Your task to perform on an android device: Show me popular videos on Youtube Image 0: 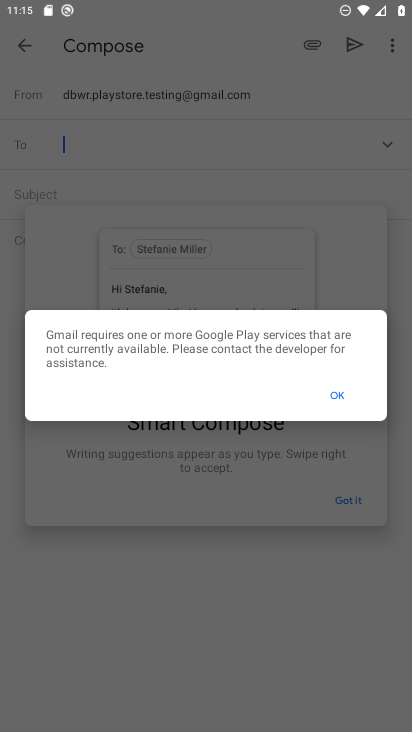
Step 0: click (334, 397)
Your task to perform on an android device: Show me popular videos on Youtube Image 1: 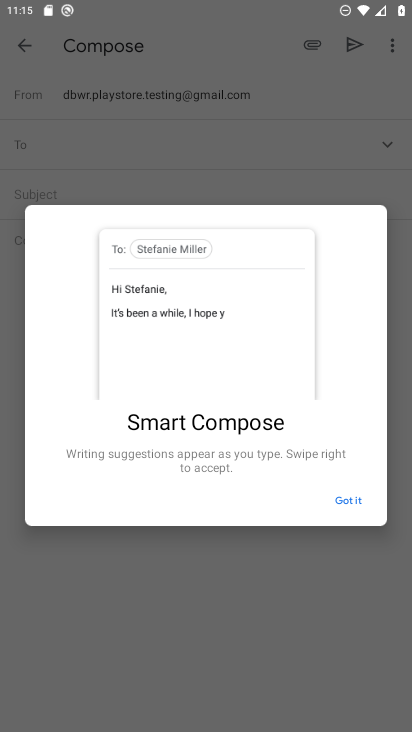
Step 1: click (343, 500)
Your task to perform on an android device: Show me popular videos on Youtube Image 2: 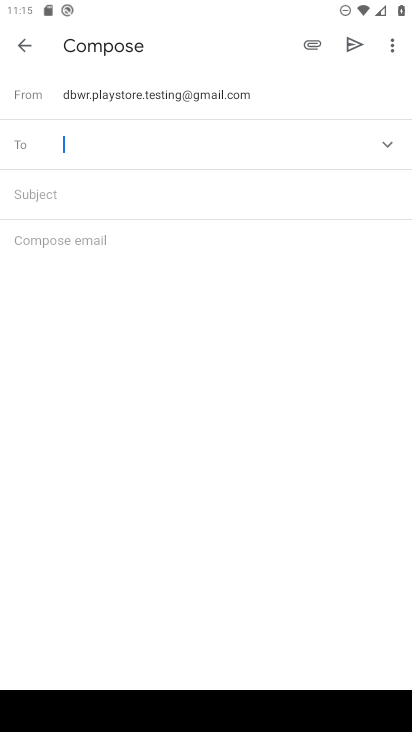
Step 2: click (387, 33)
Your task to perform on an android device: Show me popular videos on Youtube Image 3: 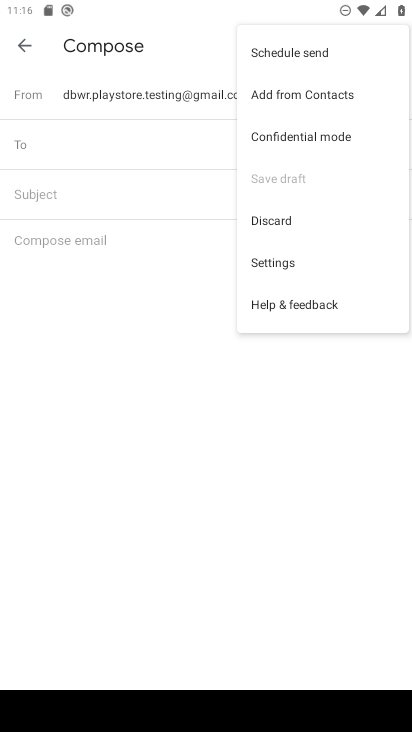
Step 3: click (214, 287)
Your task to perform on an android device: Show me popular videos on Youtube Image 4: 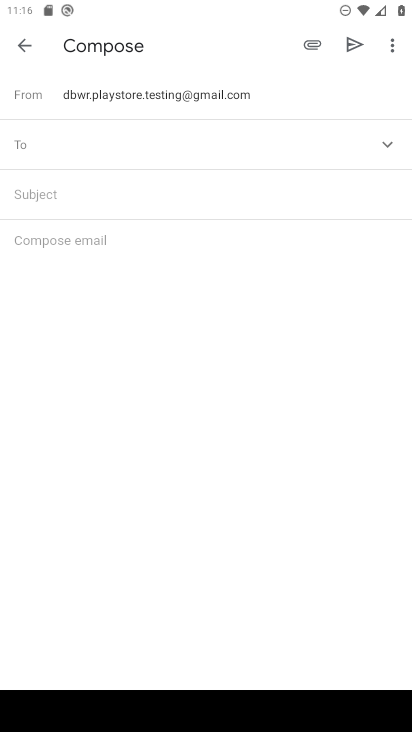
Step 4: press home button
Your task to perform on an android device: Show me popular videos on Youtube Image 5: 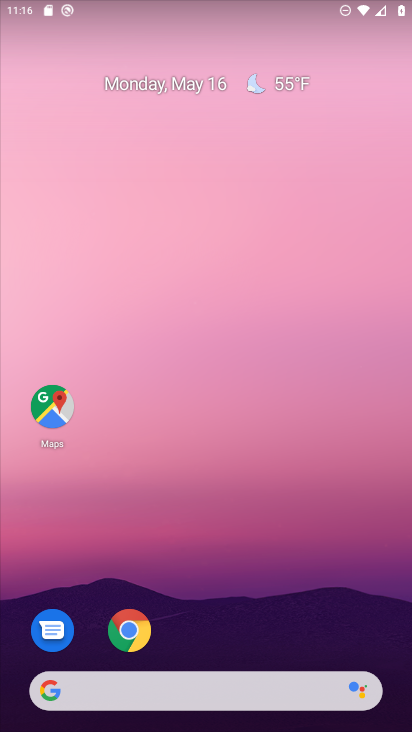
Step 5: drag from (218, 544) to (234, 80)
Your task to perform on an android device: Show me popular videos on Youtube Image 6: 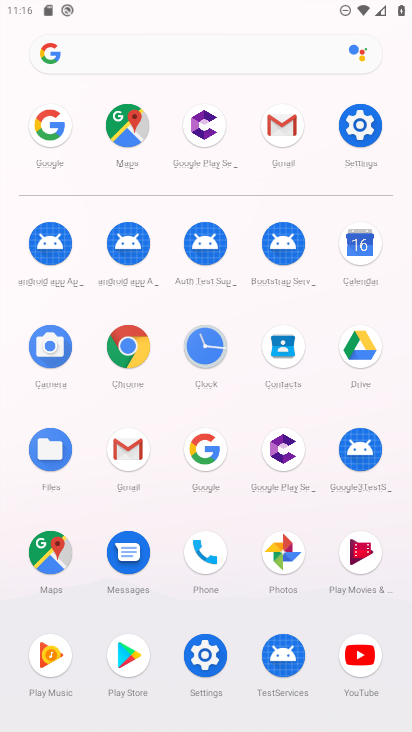
Step 6: click (361, 659)
Your task to perform on an android device: Show me popular videos on Youtube Image 7: 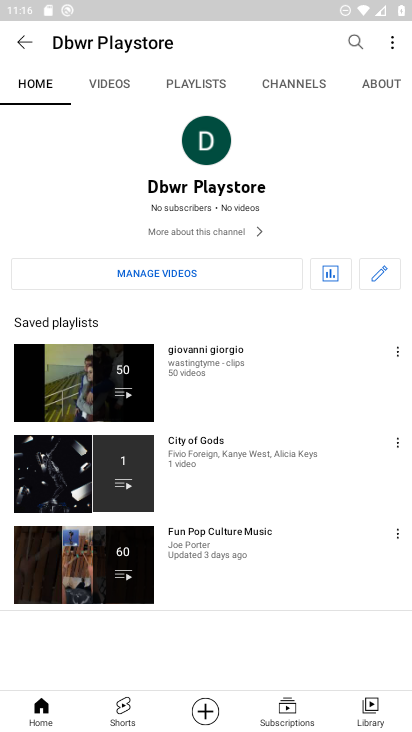
Step 7: click (363, 38)
Your task to perform on an android device: Show me popular videos on Youtube Image 8: 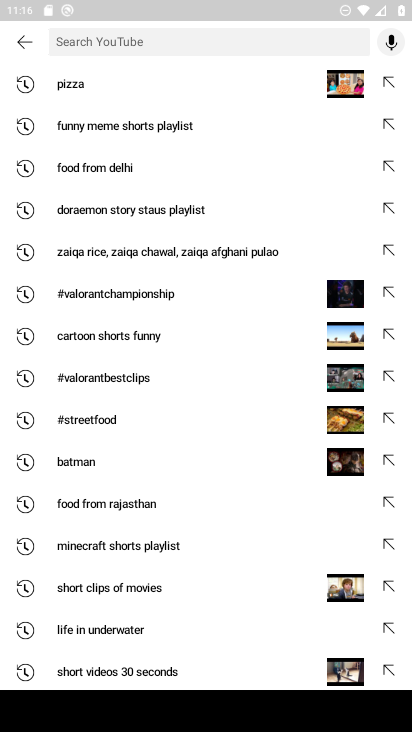
Step 8: type "popular videos"
Your task to perform on an android device: Show me popular videos on Youtube Image 9: 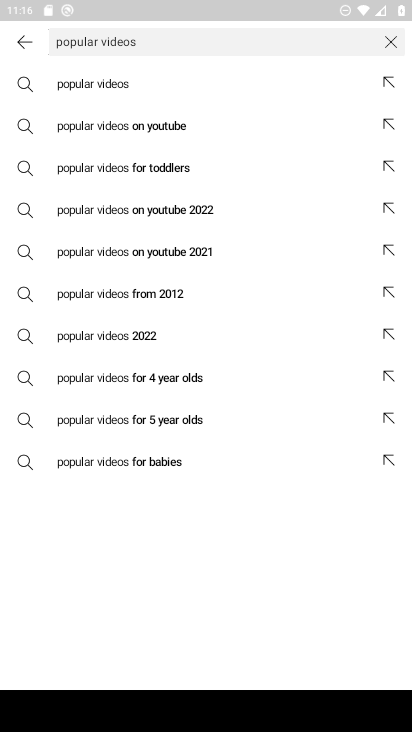
Step 9: click (170, 82)
Your task to perform on an android device: Show me popular videos on Youtube Image 10: 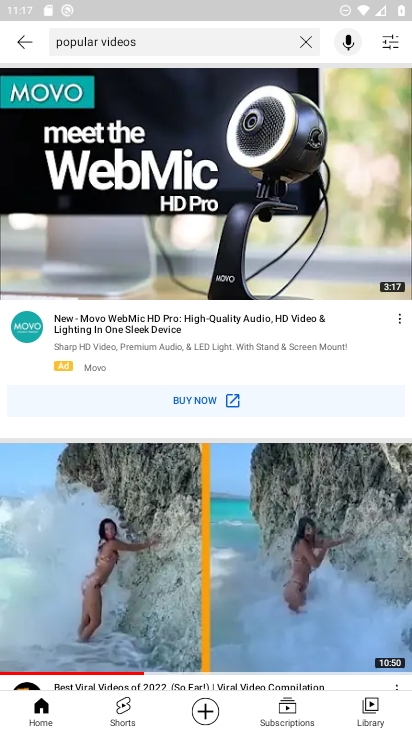
Step 10: task complete